Your task to perform on an android device: toggle notification dots Image 0: 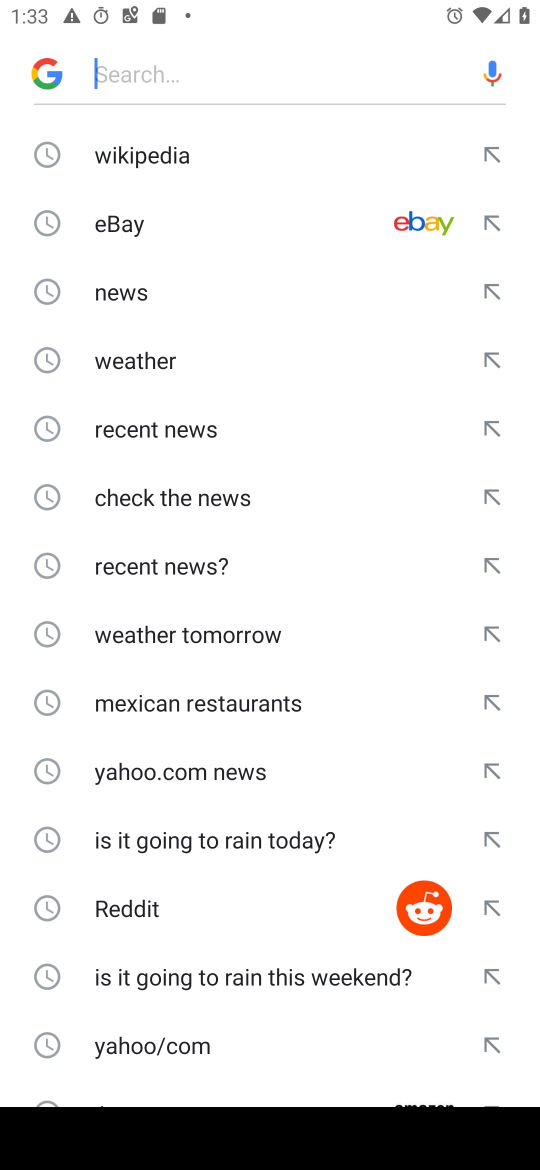
Step 0: press home button
Your task to perform on an android device: toggle notification dots Image 1: 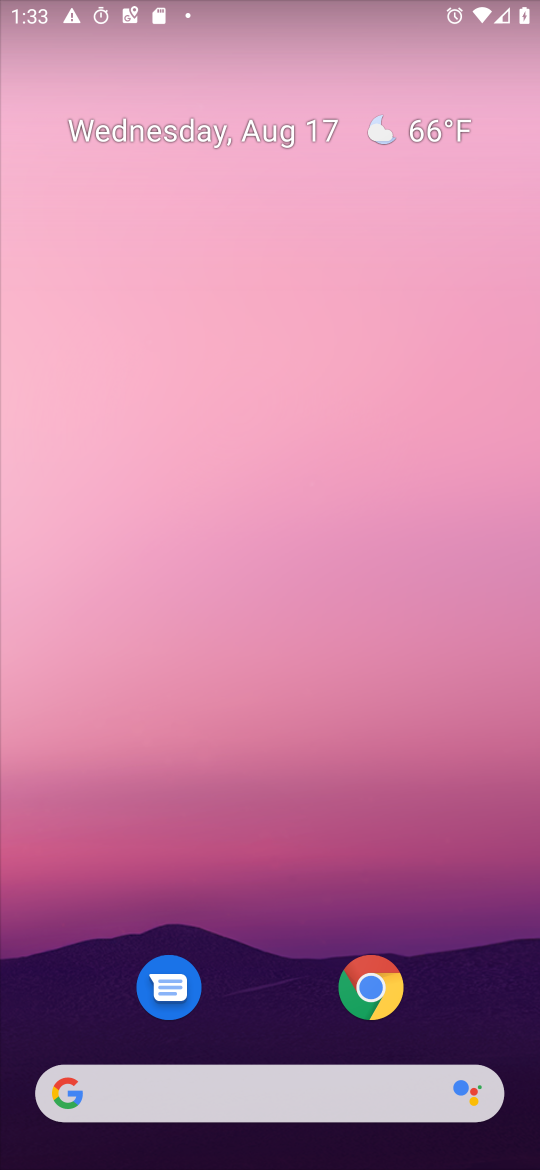
Step 1: drag from (47, 1165) to (282, 368)
Your task to perform on an android device: toggle notification dots Image 2: 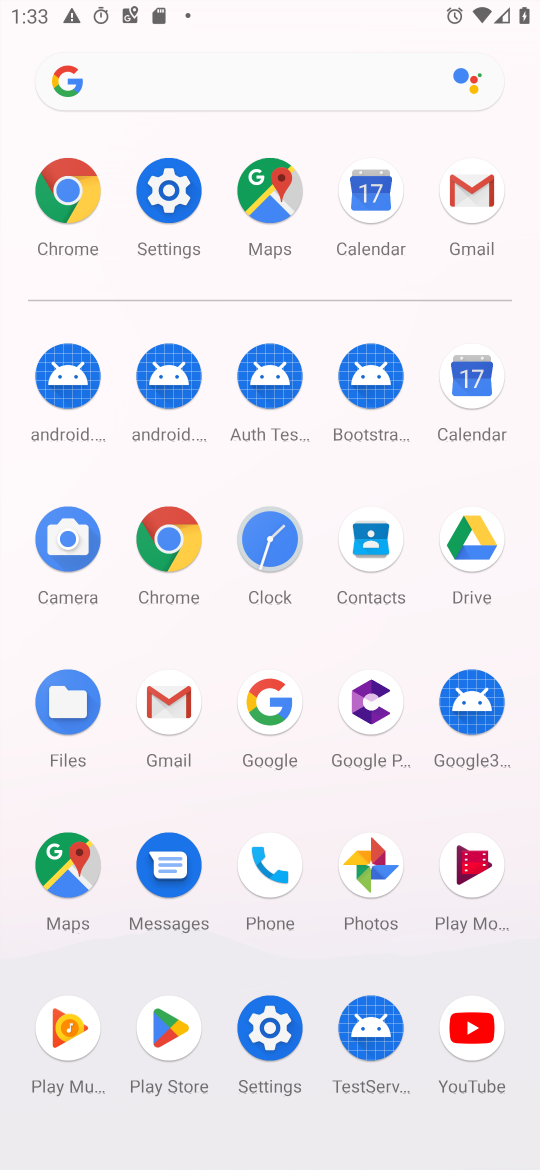
Step 2: click (269, 1027)
Your task to perform on an android device: toggle notification dots Image 3: 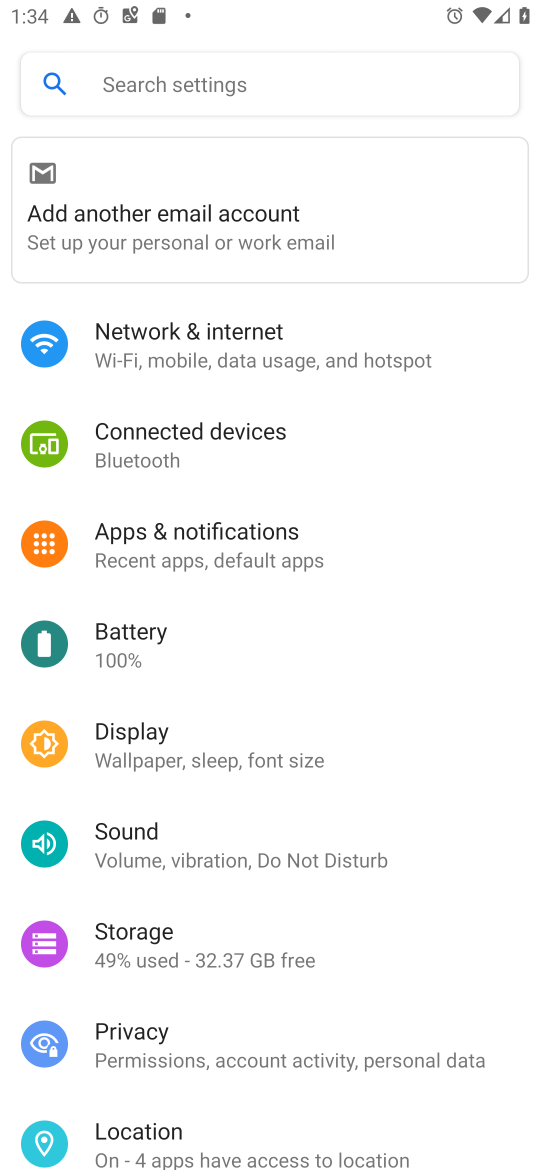
Step 3: click (208, 569)
Your task to perform on an android device: toggle notification dots Image 4: 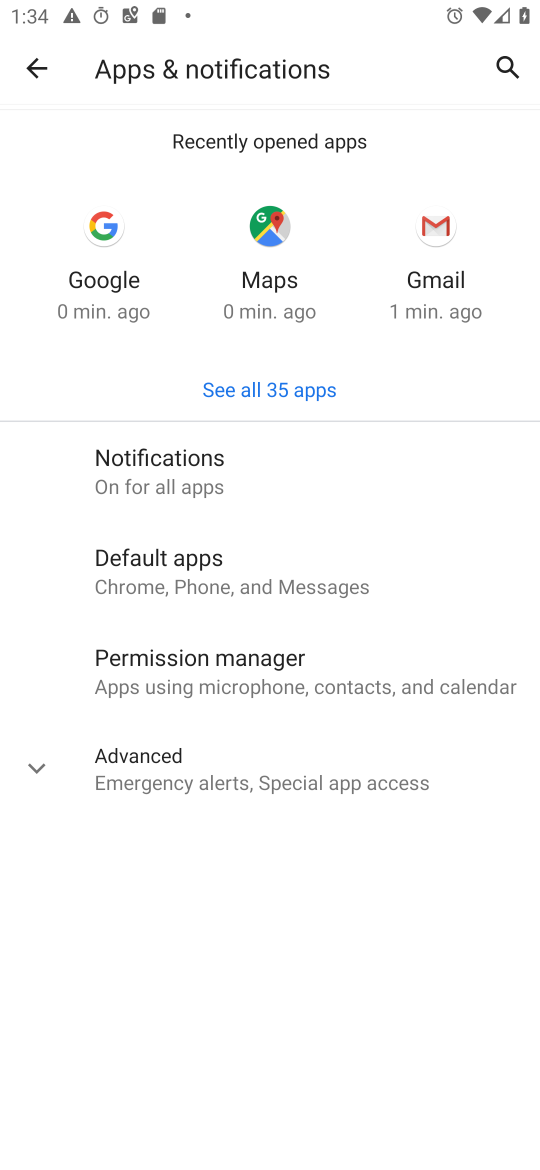
Step 4: click (212, 756)
Your task to perform on an android device: toggle notification dots Image 5: 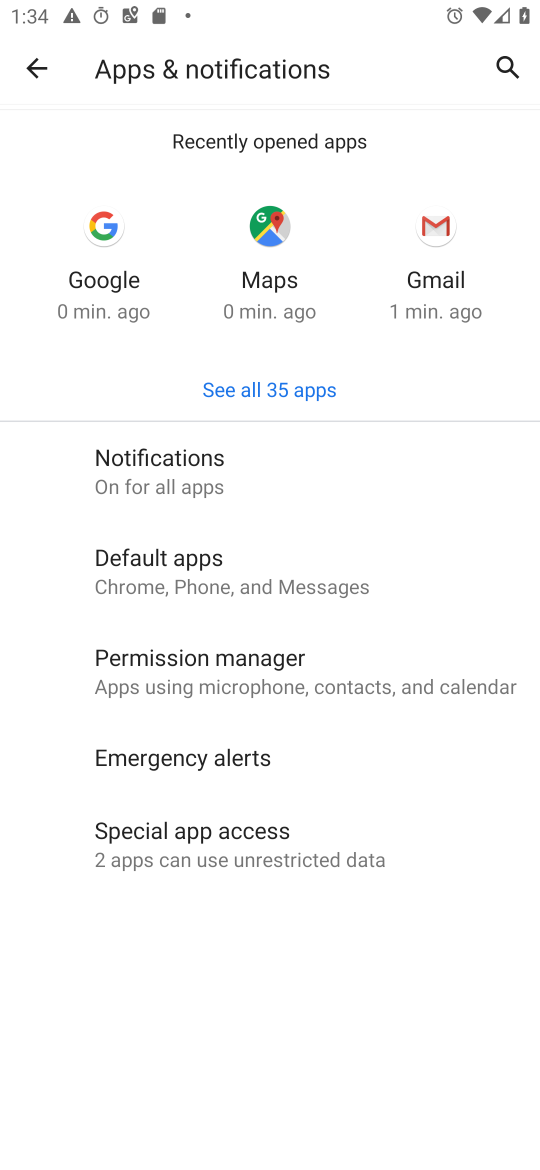
Step 5: click (180, 459)
Your task to perform on an android device: toggle notification dots Image 6: 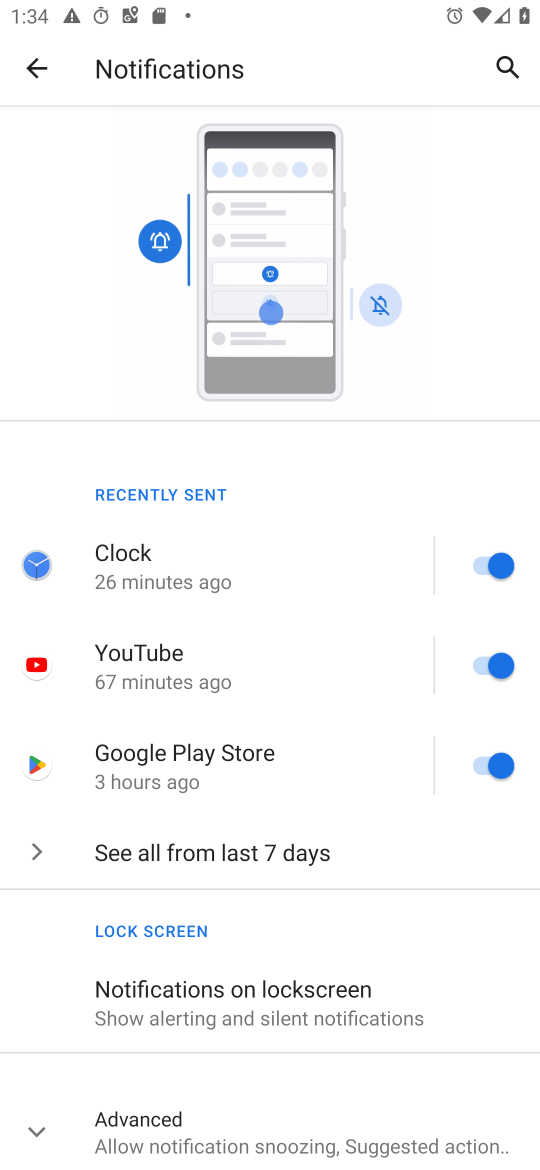
Step 6: drag from (386, 1092) to (369, 656)
Your task to perform on an android device: toggle notification dots Image 7: 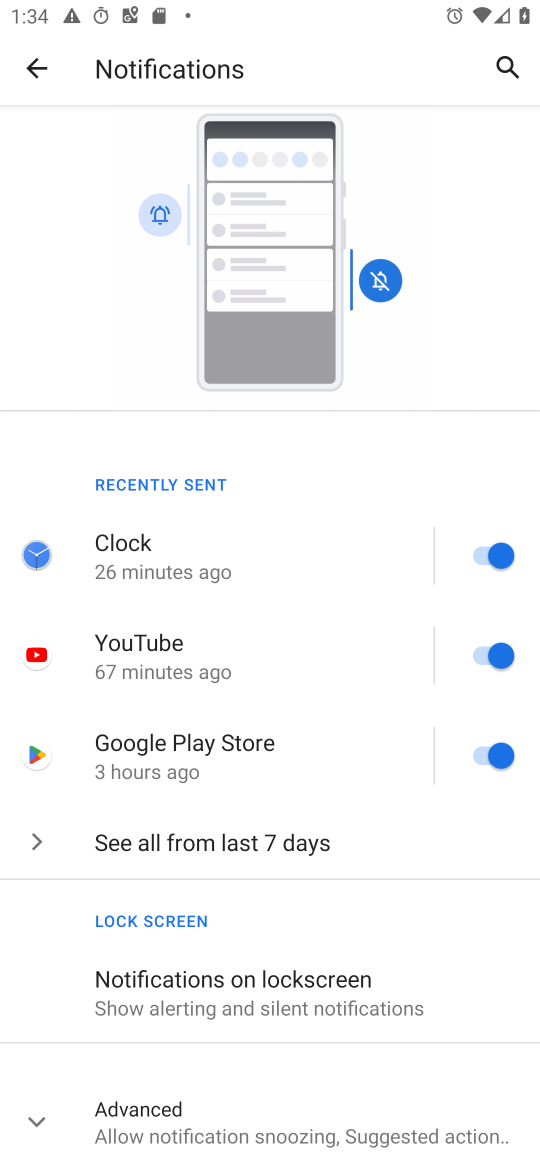
Step 7: drag from (512, 1025) to (497, 761)
Your task to perform on an android device: toggle notification dots Image 8: 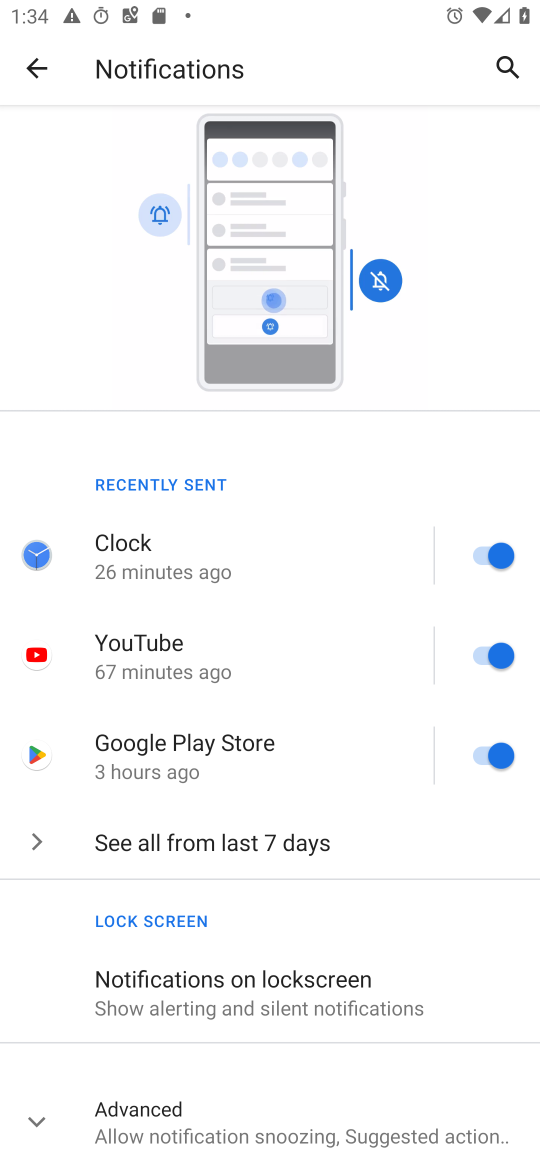
Step 8: drag from (463, 888) to (399, 283)
Your task to perform on an android device: toggle notification dots Image 9: 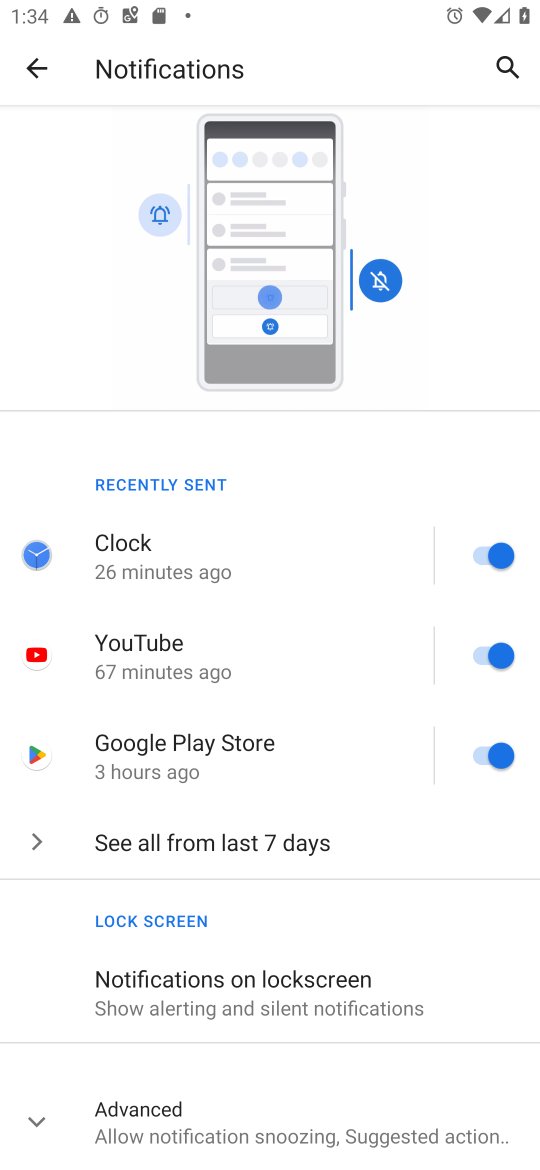
Step 9: drag from (60, 1080) to (161, 551)
Your task to perform on an android device: toggle notification dots Image 10: 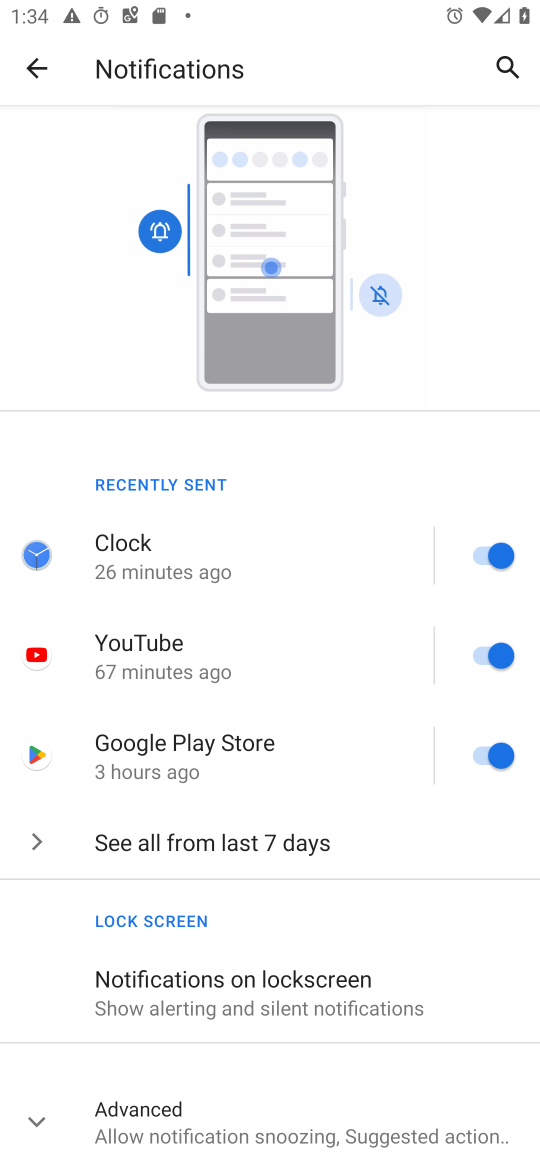
Step 10: click (333, 1126)
Your task to perform on an android device: toggle notification dots Image 11: 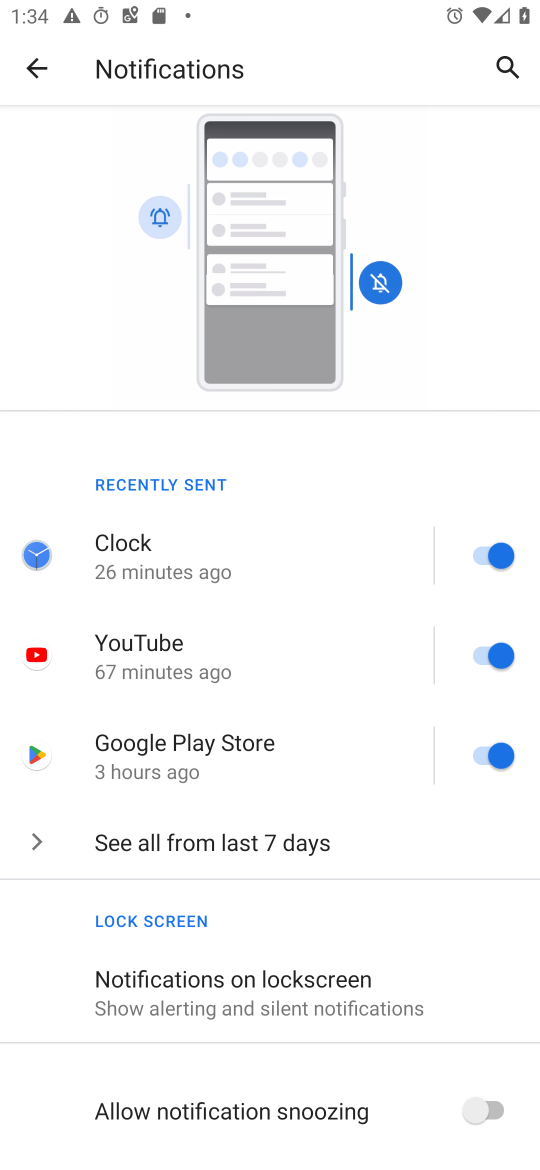
Step 11: click (483, 967)
Your task to perform on an android device: toggle notification dots Image 12: 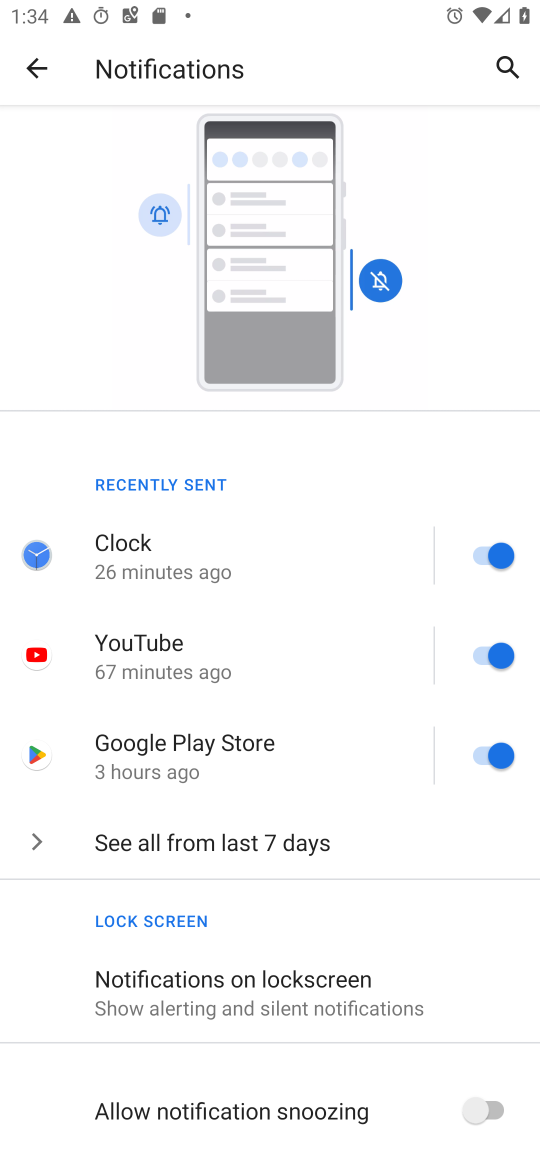
Step 12: drag from (483, 967) to (432, 262)
Your task to perform on an android device: toggle notification dots Image 13: 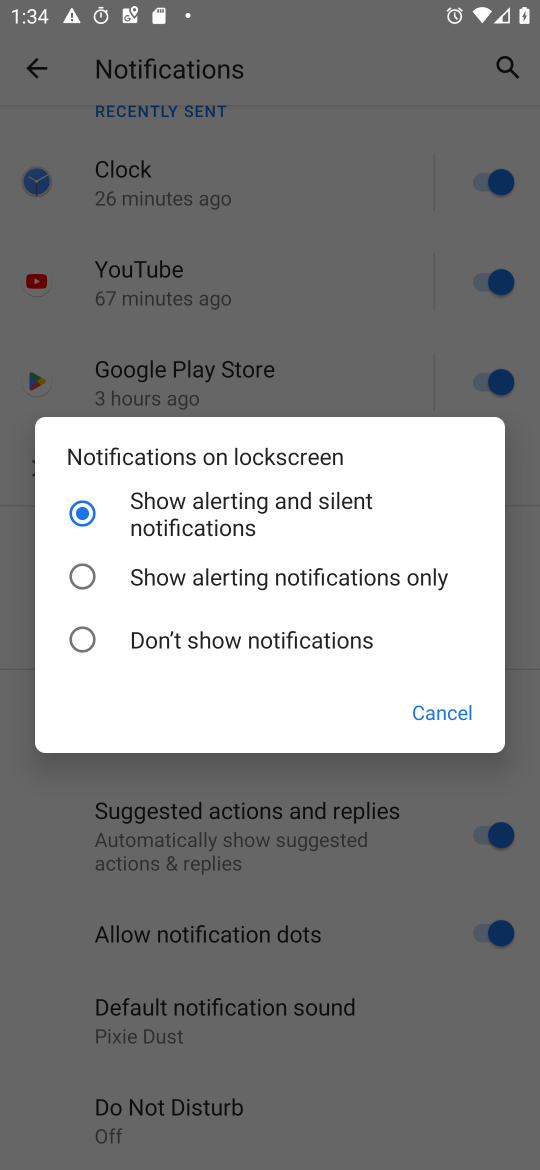
Step 13: click (435, 735)
Your task to perform on an android device: toggle notification dots Image 14: 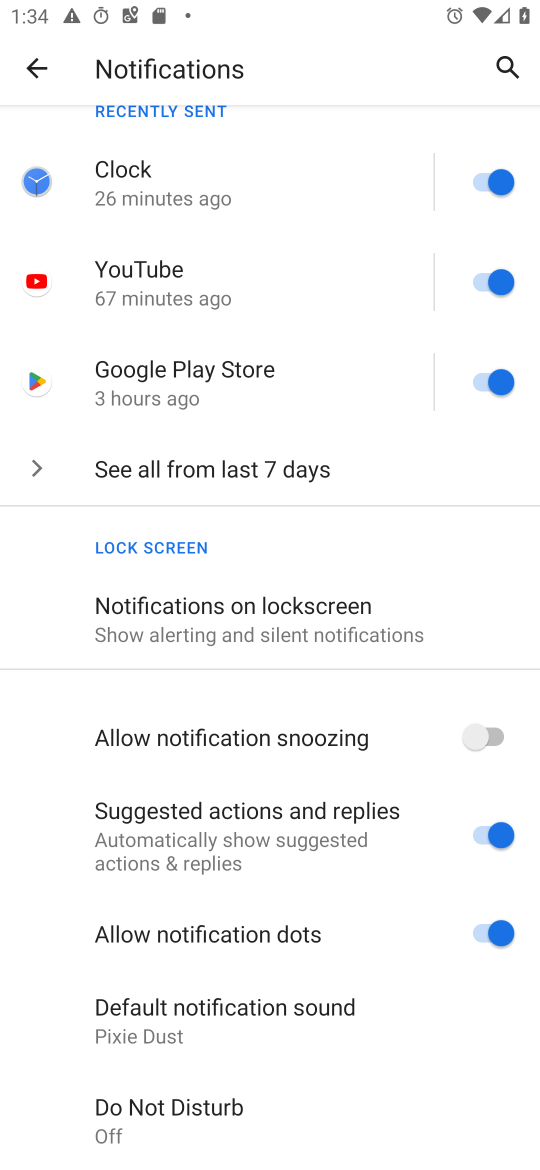
Step 14: task complete